Your task to perform on an android device: check storage Image 0: 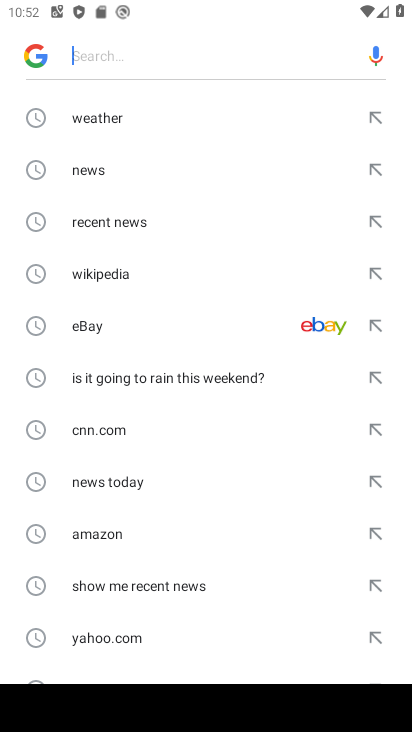
Step 0: press home button
Your task to perform on an android device: check storage Image 1: 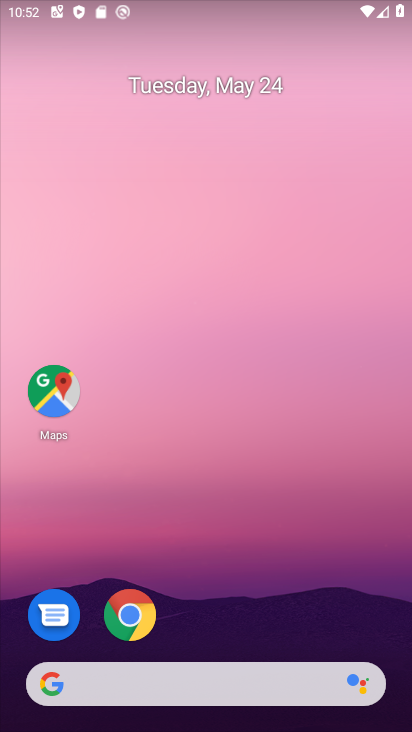
Step 1: drag from (235, 568) to (171, 147)
Your task to perform on an android device: check storage Image 2: 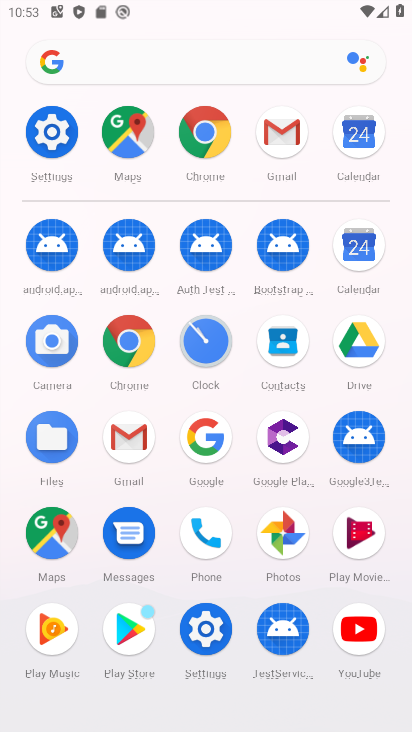
Step 2: click (42, 144)
Your task to perform on an android device: check storage Image 3: 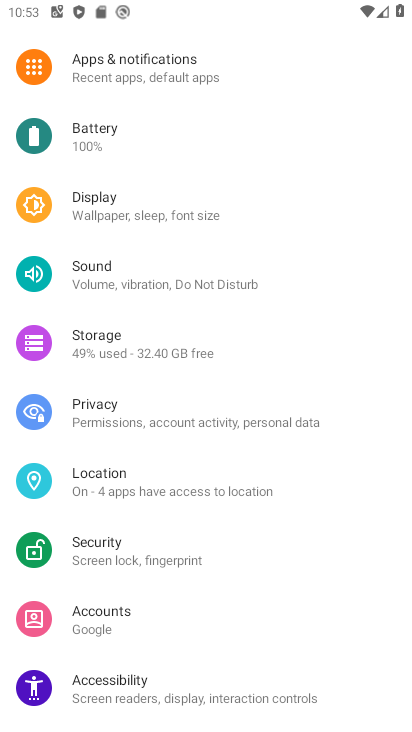
Step 3: drag from (130, 318) to (162, 647)
Your task to perform on an android device: check storage Image 4: 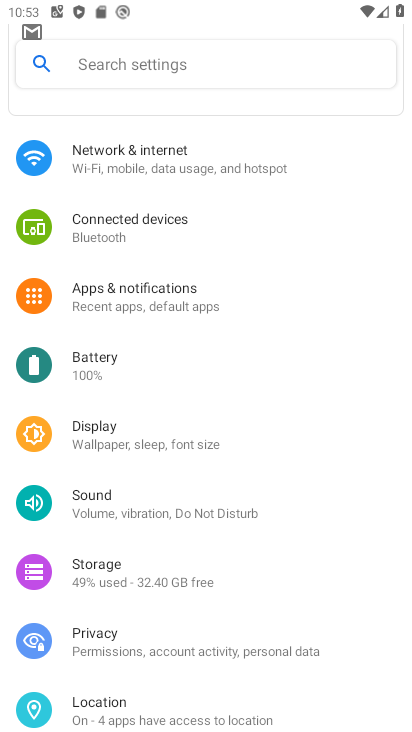
Step 4: click (154, 585)
Your task to perform on an android device: check storage Image 5: 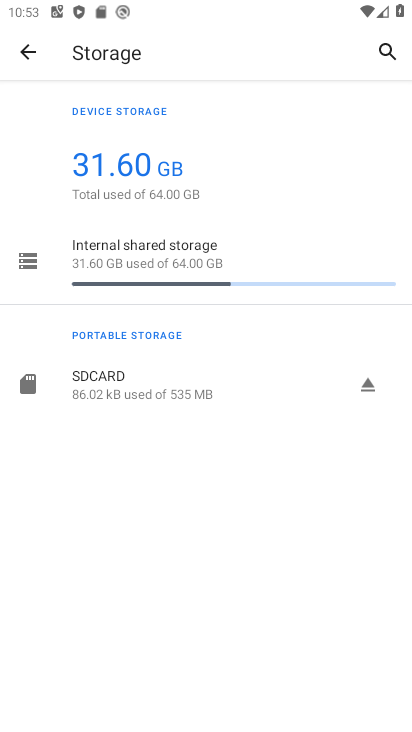
Step 5: task complete